Your task to perform on an android device: See recent photos Image 0: 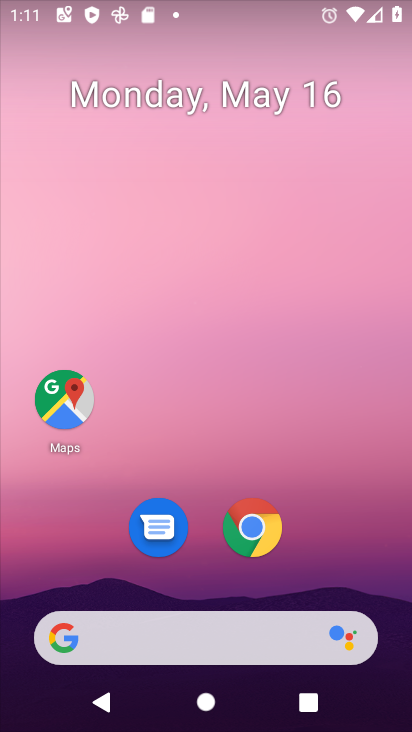
Step 0: drag from (363, 569) to (306, 188)
Your task to perform on an android device: See recent photos Image 1: 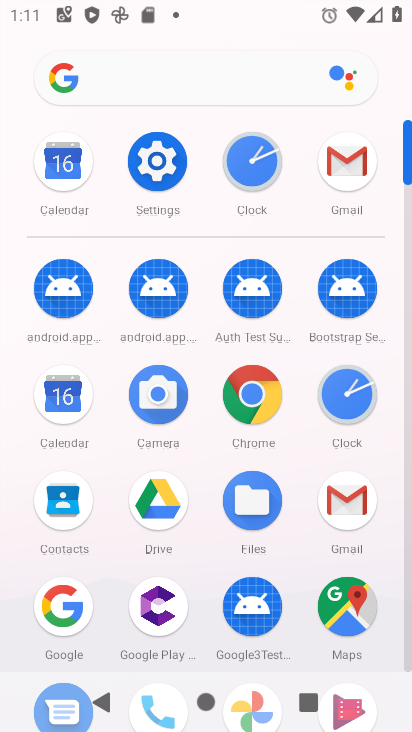
Step 1: click (407, 642)
Your task to perform on an android device: See recent photos Image 2: 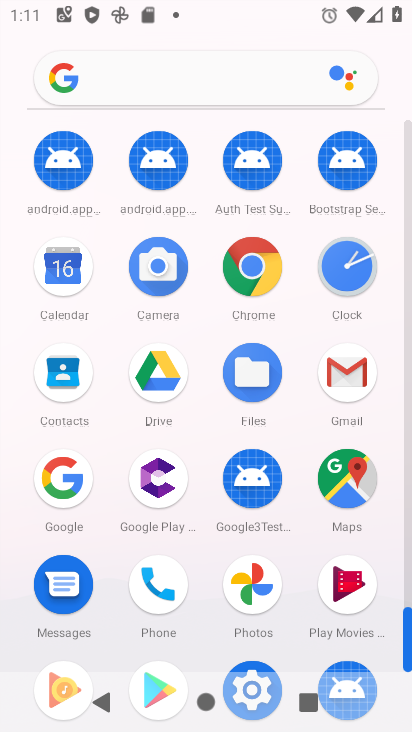
Step 2: click (271, 613)
Your task to perform on an android device: See recent photos Image 3: 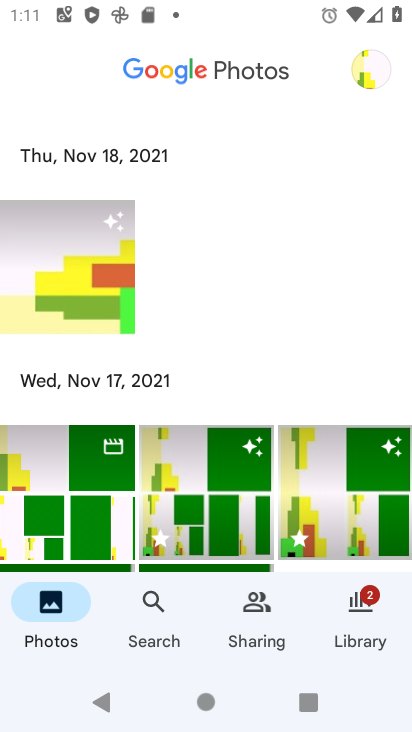
Step 3: task complete